Your task to perform on an android device: Go to sound settings Image 0: 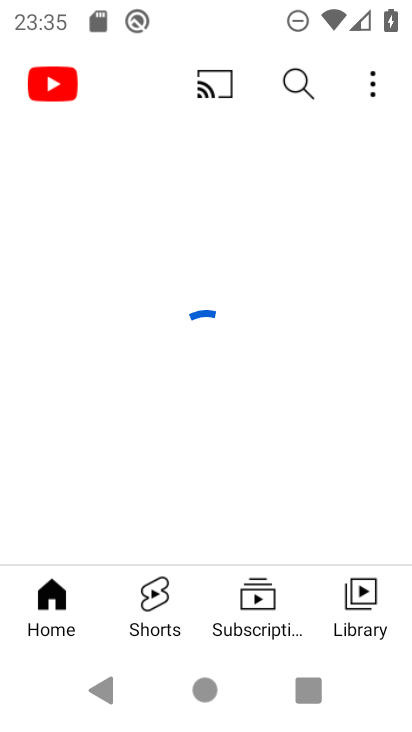
Step 0: drag from (197, 502) to (247, 111)
Your task to perform on an android device: Go to sound settings Image 1: 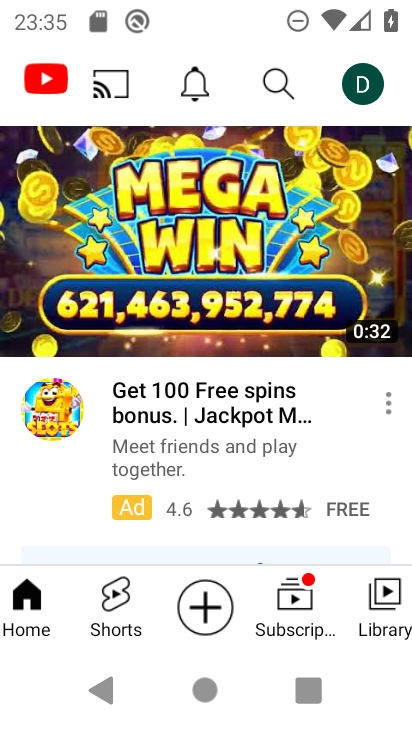
Step 1: press home button
Your task to perform on an android device: Go to sound settings Image 2: 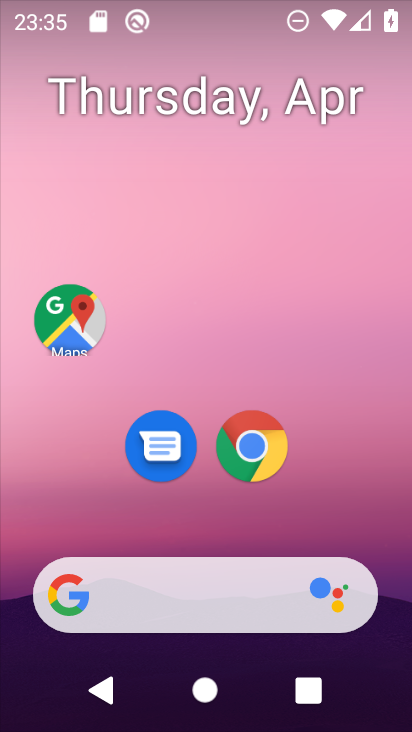
Step 2: drag from (204, 526) to (211, 0)
Your task to perform on an android device: Go to sound settings Image 3: 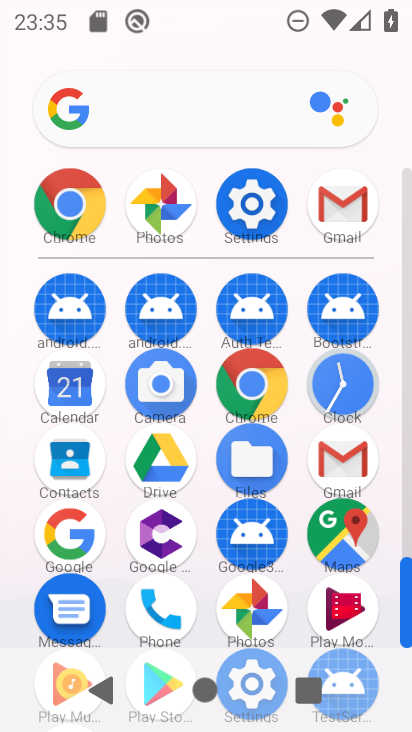
Step 3: click (240, 196)
Your task to perform on an android device: Go to sound settings Image 4: 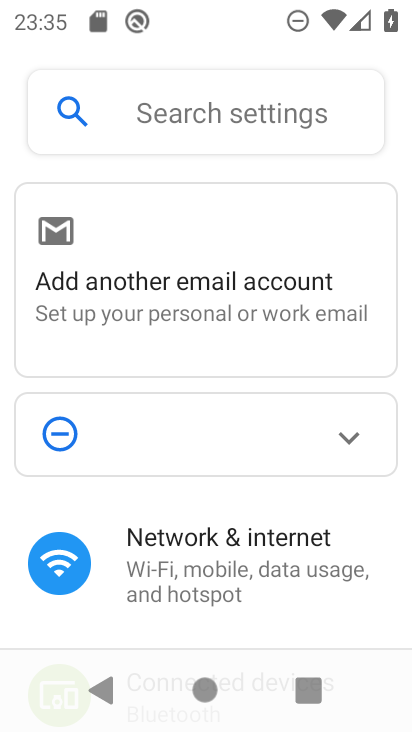
Step 4: drag from (216, 530) to (289, 57)
Your task to perform on an android device: Go to sound settings Image 5: 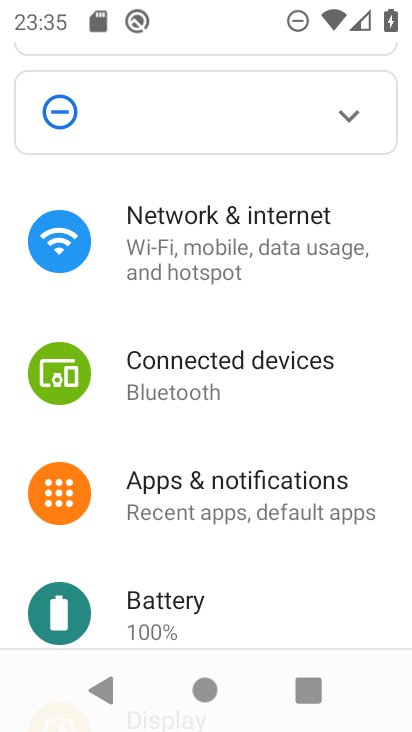
Step 5: drag from (173, 555) to (299, 149)
Your task to perform on an android device: Go to sound settings Image 6: 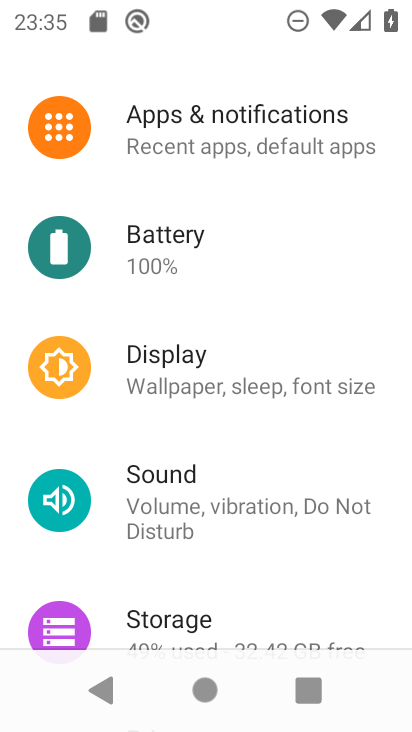
Step 6: click (150, 482)
Your task to perform on an android device: Go to sound settings Image 7: 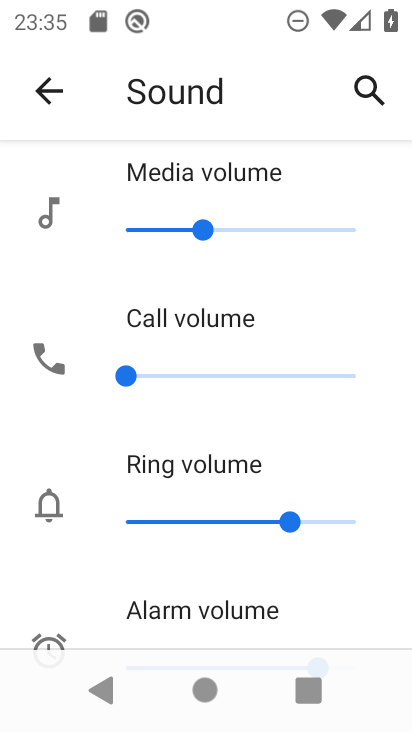
Step 7: task complete